Your task to perform on an android device: add a contact Image 0: 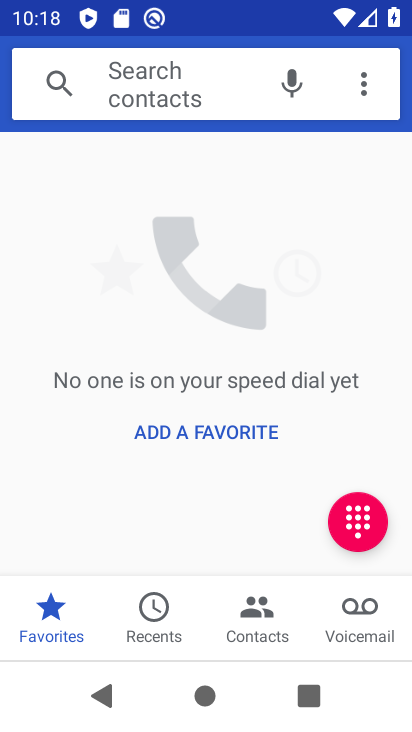
Step 0: press home button
Your task to perform on an android device: add a contact Image 1: 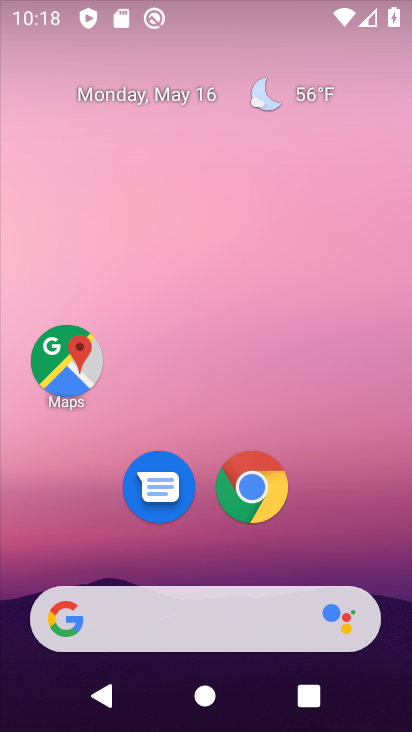
Step 1: drag from (295, 543) to (283, 222)
Your task to perform on an android device: add a contact Image 2: 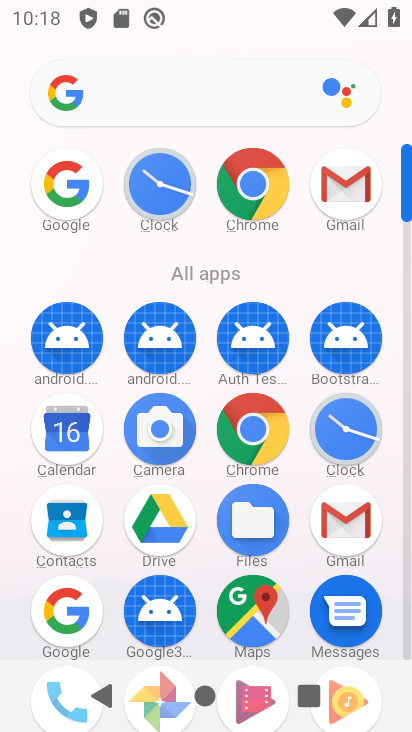
Step 2: click (62, 538)
Your task to perform on an android device: add a contact Image 3: 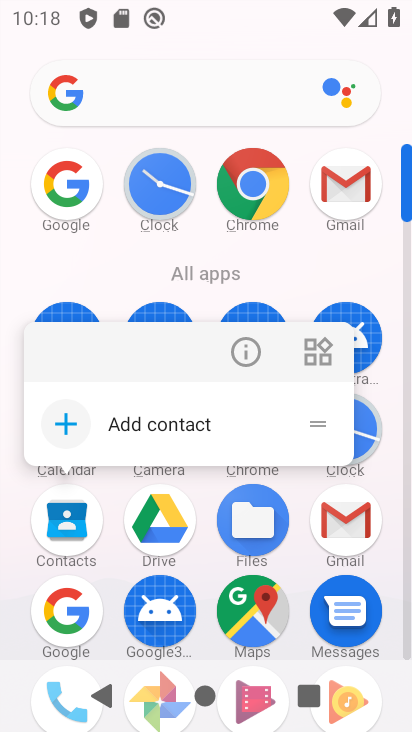
Step 3: click (62, 525)
Your task to perform on an android device: add a contact Image 4: 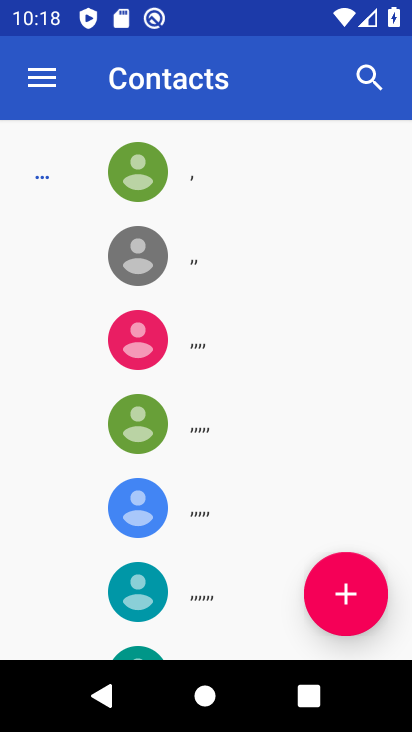
Step 4: click (324, 608)
Your task to perform on an android device: add a contact Image 5: 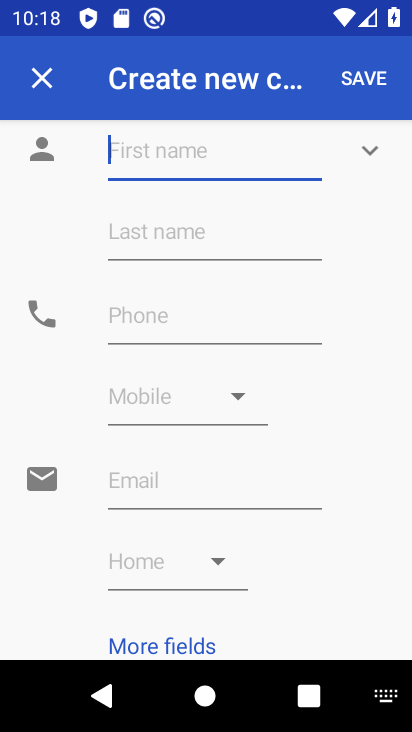
Step 5: click (165, 147)
Your task to perform on an android device: add a contact Image 6: 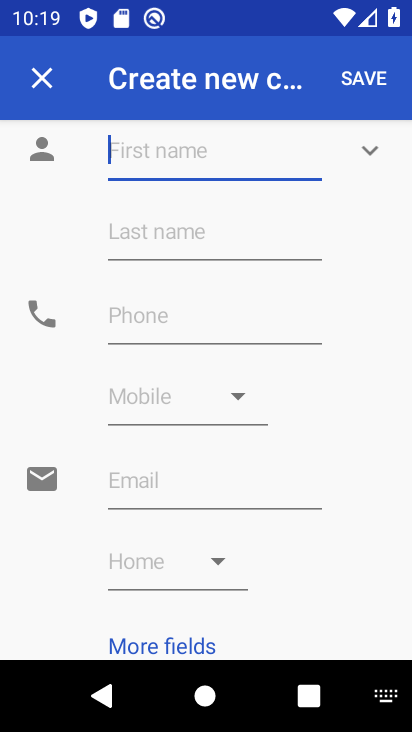
Step 6: type "Namrata saxena"
Your task to perform on an android device: add a contact Image 7: 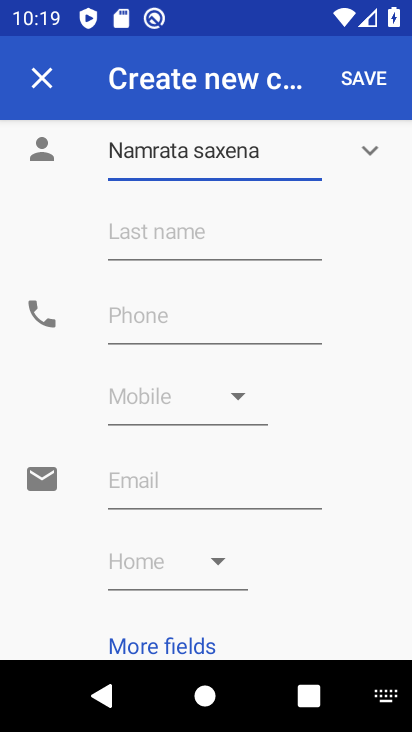
Step 7: click (278, 143)
Your task to perform on an android device: add a contact Image 8: 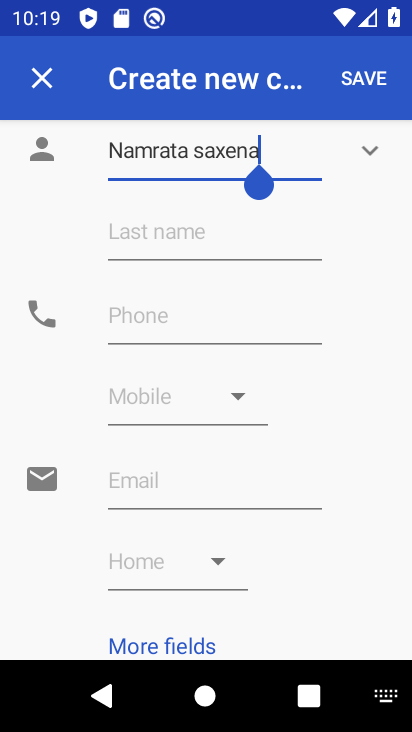
Step 8: click (165, 321)
Your task to perform on an android device: add a contact Image 9: 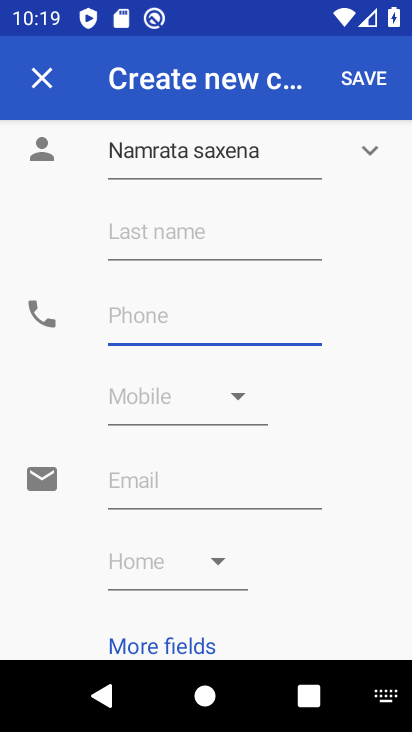
Step 9: type "7878878790"
Your task to perform on an android device: add a contact Image 10: 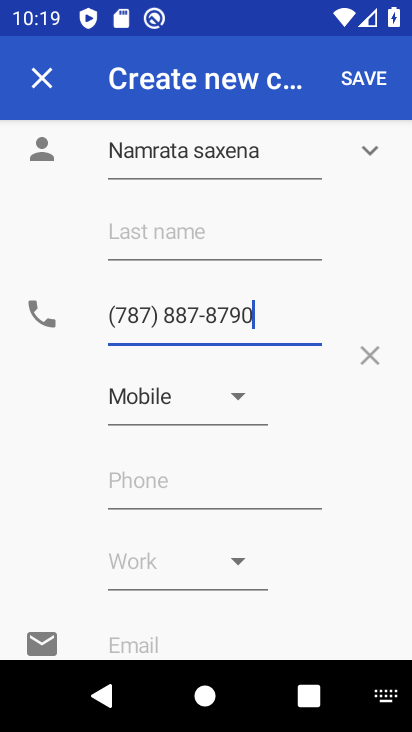
Step 10: click (376, 86)
Your task to perform on an android device: add a contact Image 11: 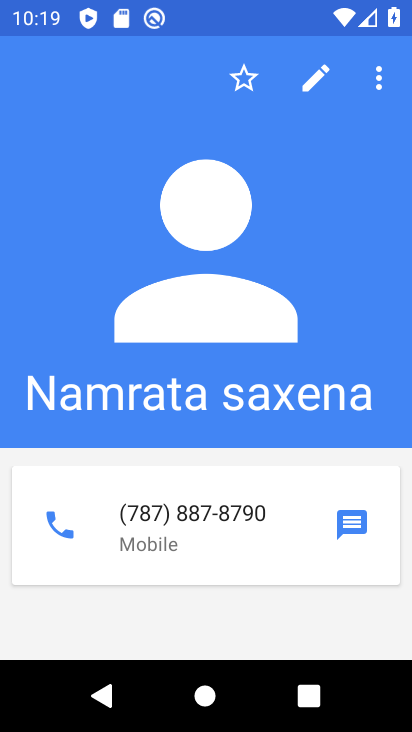
Step 11: task complete